Your task to perform on an android device: open the mobile data screen to see how much data has been used Image 0: 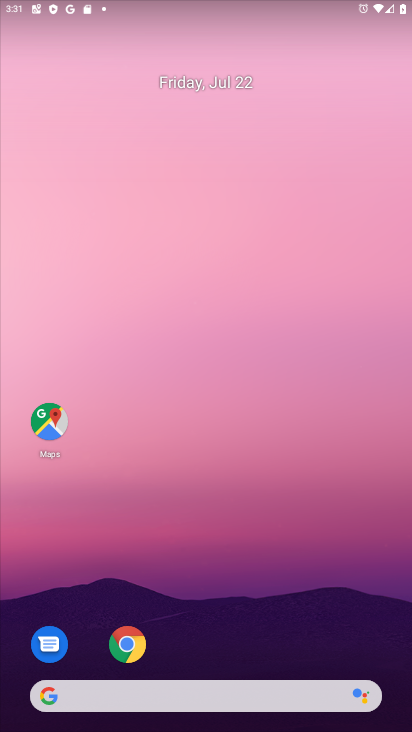
Step 0: drag from (275, 589) to (294, 225)
Your task to perform on an android device: open the mobile data screen to see how much data has been used Image 1: 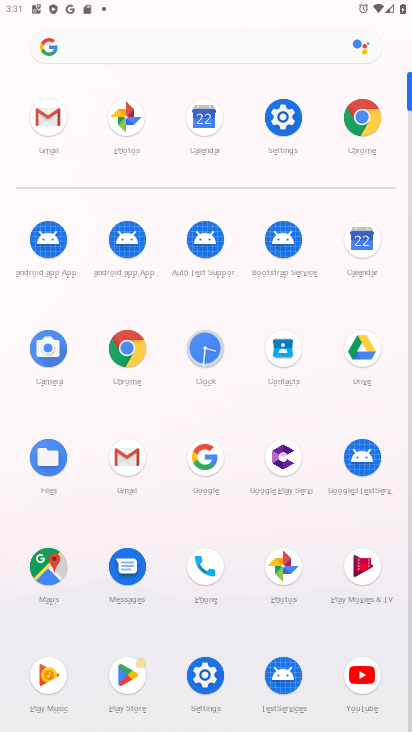
Step 1: click (276, 107)
Your task to perform on an android device: open the mobile data screen to see how much data has been used Image 2: 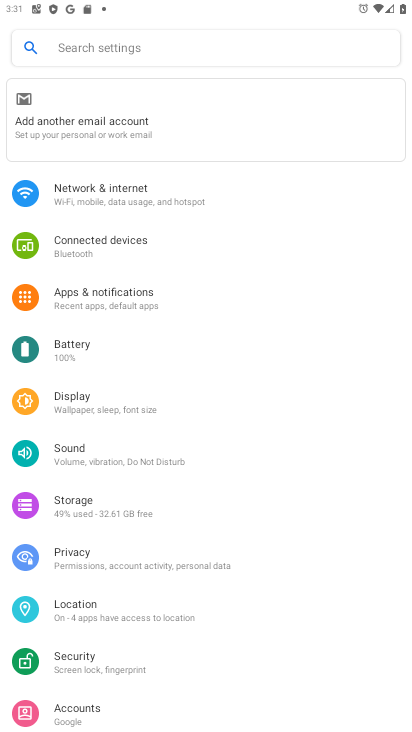
Step 2: click (112, 185)
Your task to perform on an android device: open the mobile data screen to see how much data has been used Image 3: 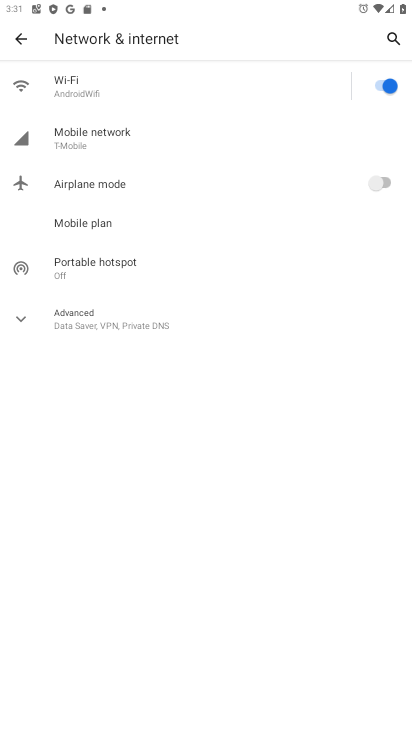
Step 3: task complete